Your task to perform on an android device: When is my next meeting? Image 0: 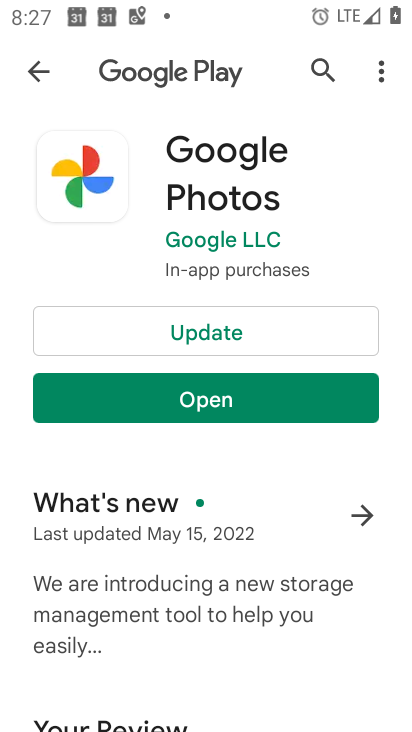
Step 0: press home button
Your task to perform on an android device: When is my next meeting? Image 1: 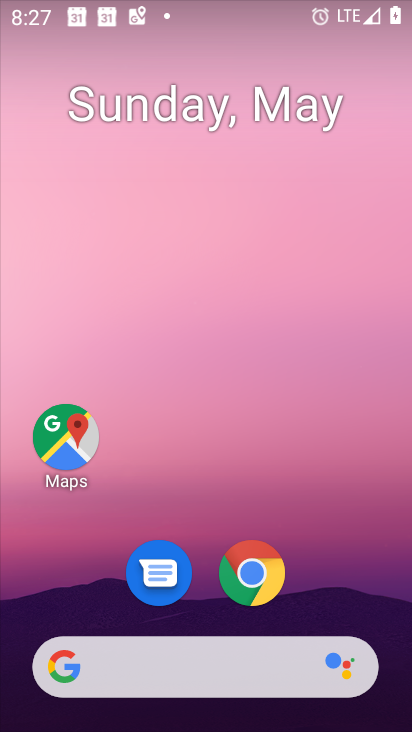
Step 1: drag from (218, 498) to (208, 7)
Your task to perform on an android device: When is my next meeting? Image 2: 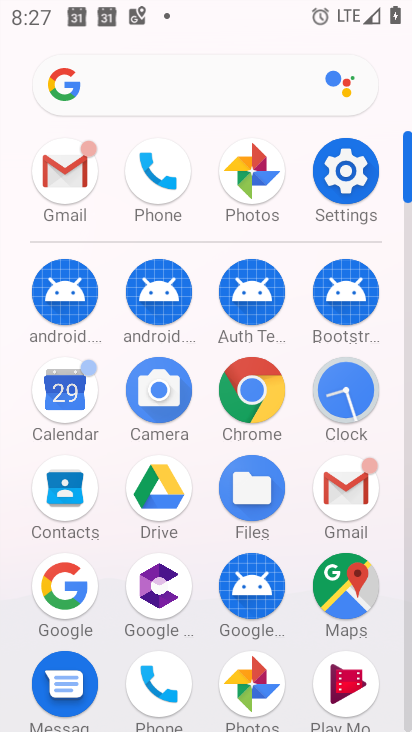
Step 2: click (69, 389)
Your task to perform on an android device: When is my next meeting? Image 3: 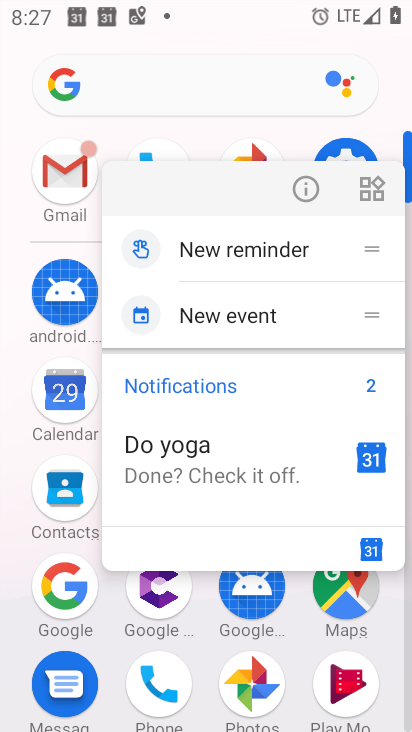
Step 3: click (64, 392)
Your task to perform on an android device: When is my next meeting? Image 4: 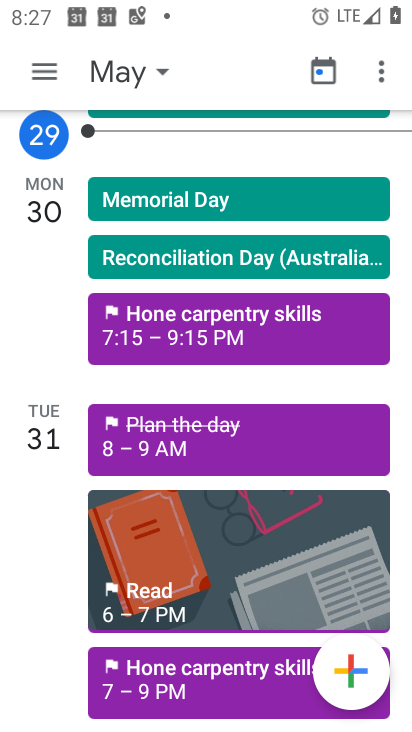
Step 4: task complete